Your task to perform on an android device: Go to Google Image 0: 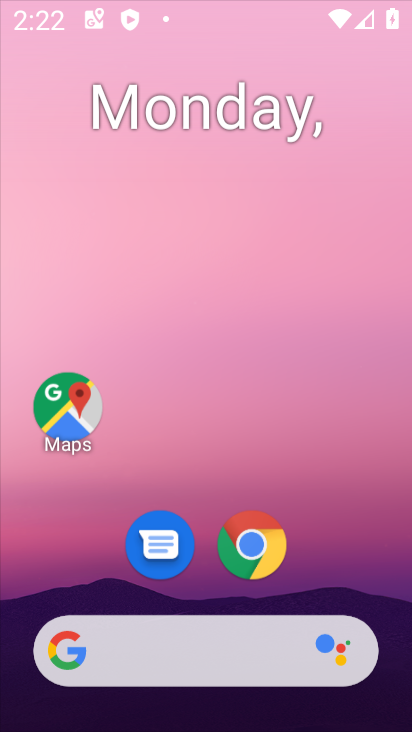
Step 0: click (253, 153)
Your task to perform on an android device: Go to Google Image 1: 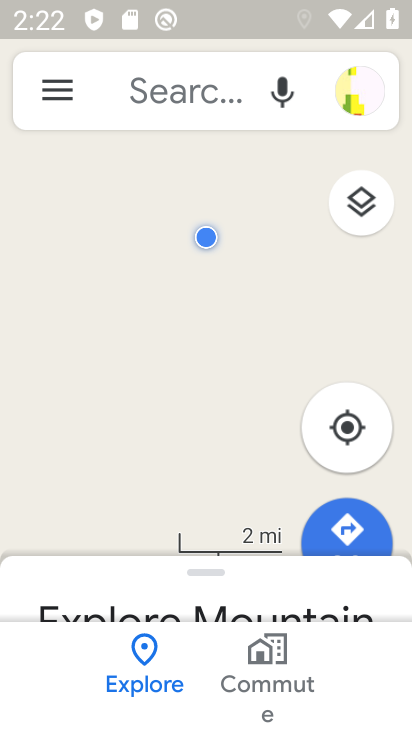
Step 1: press home button
Your task to perform on an android device: Go to Google Image 2: 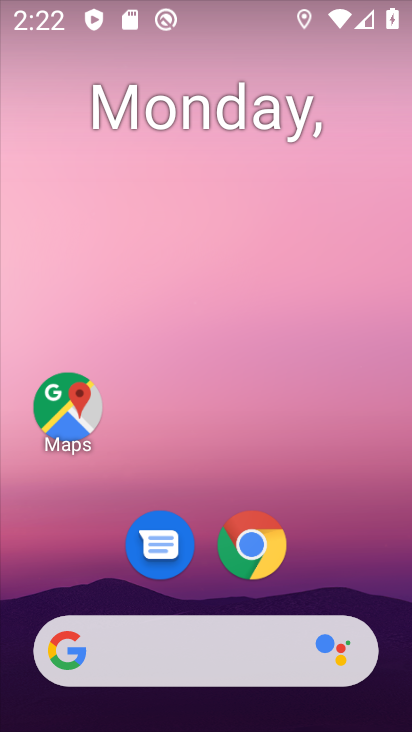
Step 2: drag from (200, 554) to (287, 48)
Your task to perform on an android device: Go to Google Image 3: 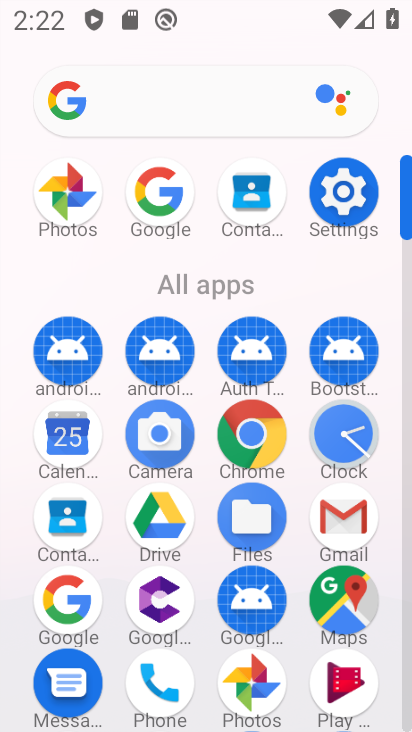
Step 3: click (70, 599)
Your task to perform on an android device: Go to Google Image 4: 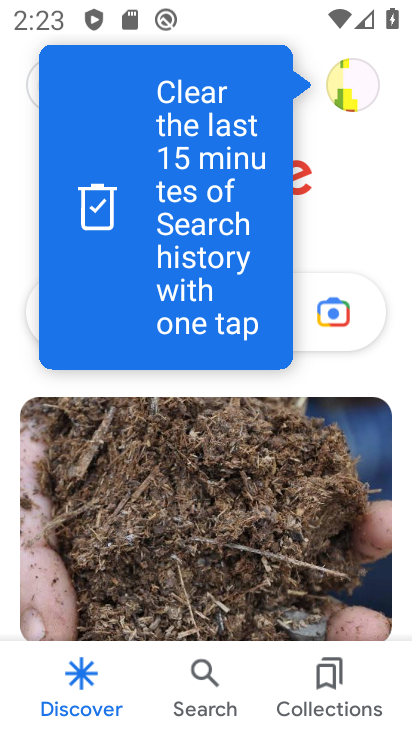
Step 4: task complete